Your task to perform on an android device: Go to Google maps Image 0: 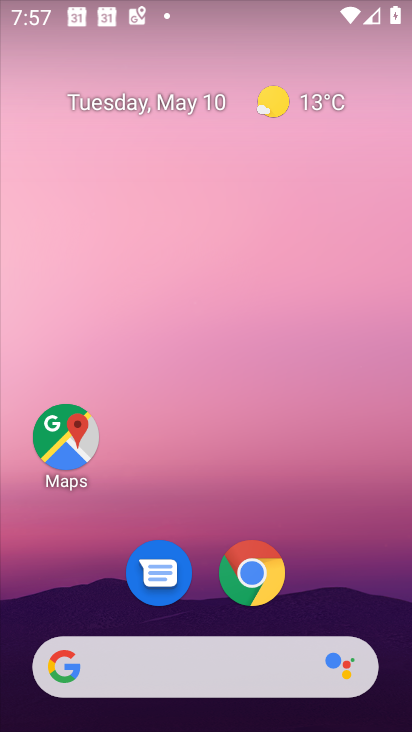
Step 0: click (67, 451)
Your task to perform on an android device: Go to Google maps Image 1: 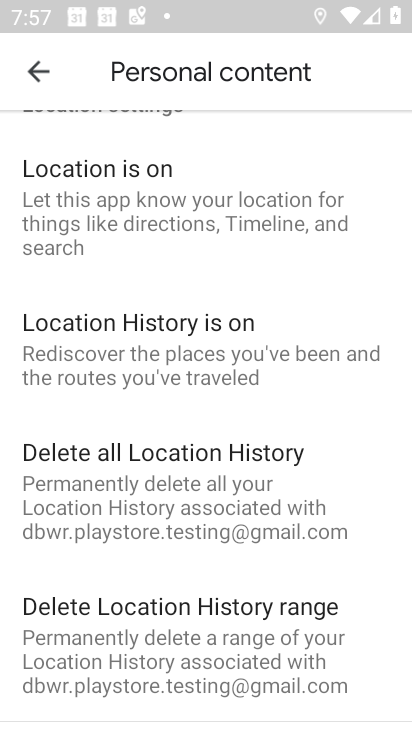
Step 1: click (35, 72)
Your task to perform on an android device: Go to Google maps Image 2: 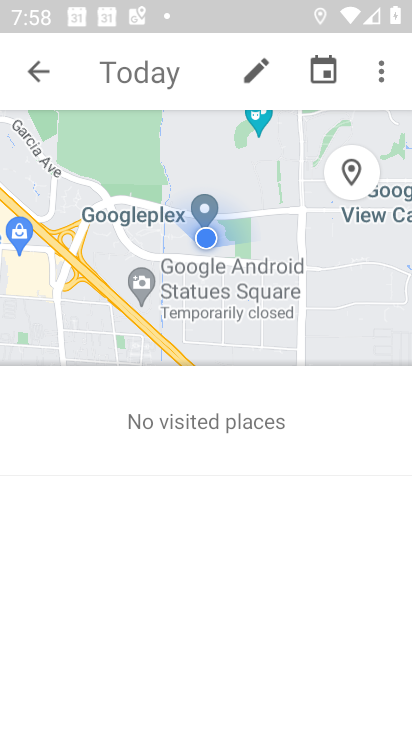
Step 2: click (32, 77)
Your task to perform on an android device: Go to Google maps Image 3: 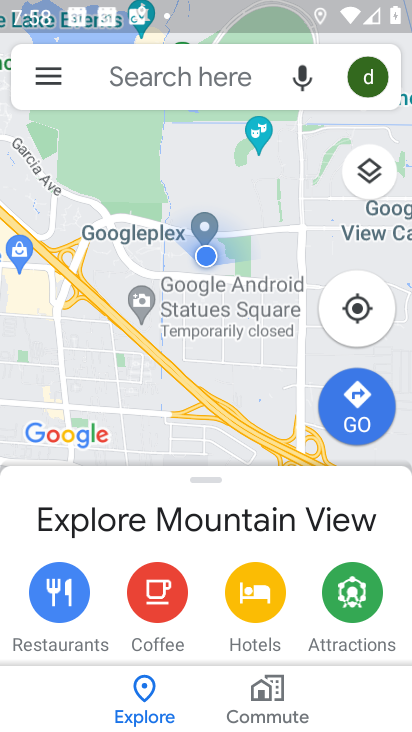
Step 3: task complete